Your task to perform on an android device: change the clock style Image 0: 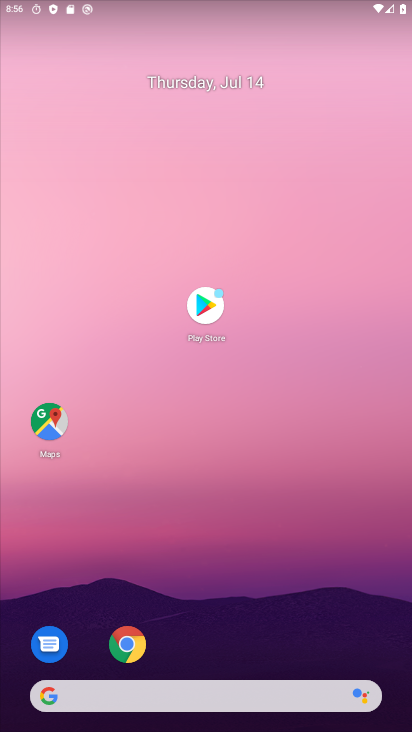
Step 0: drag from (206, 612) to (219, 142)
Your task to perform on an android device: change the clock style Image 1: 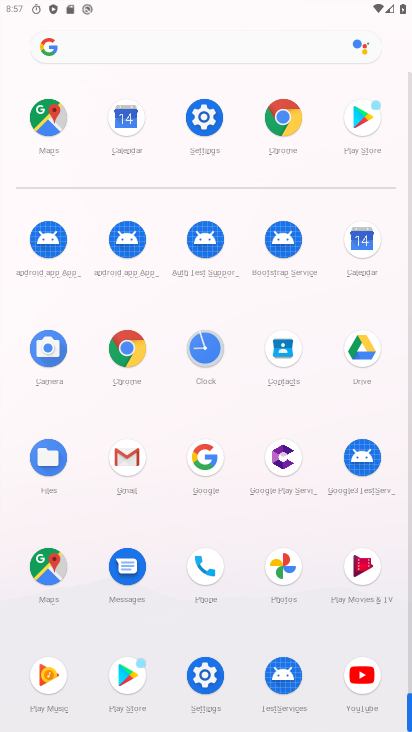
Step 1: drag from (168, 634) to (206, 365)
Your task to perform on an android device: change the clock style Image 2: 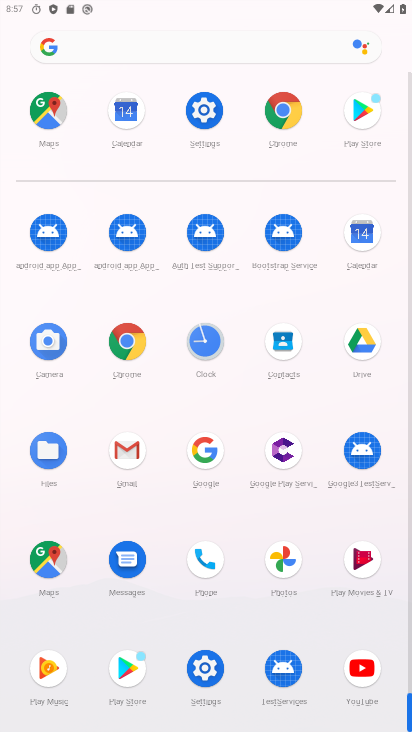
Step 2: click (195, 341)
Your task to perform on an android device: change the clock style Image 3: 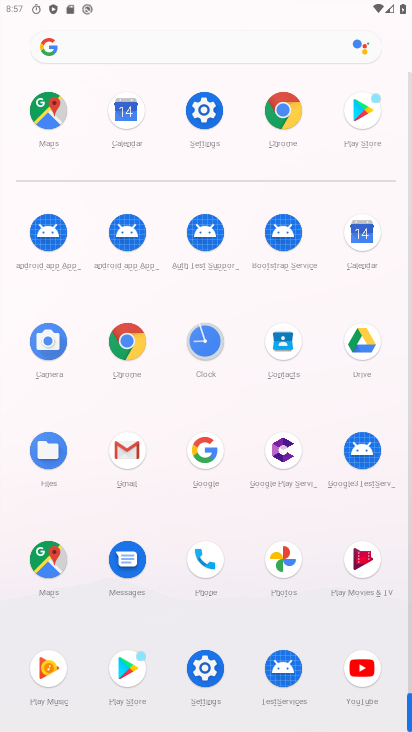
Step 3: click (195, 341)
Your task to perform on an android device: change the clock style Image 4: 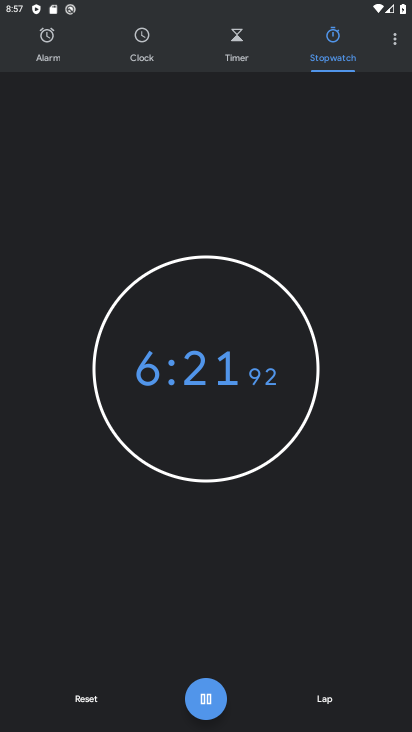
Step 4: drag from (139, 582) to (188, 248)
Your task to perform on an android device: change the clock style Image 5: 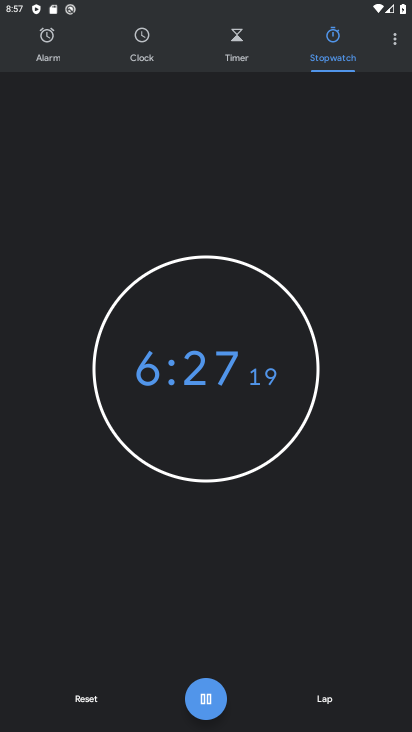
Step 5: click (384, 40)
Your task to perform on an android device: change the clock style Image 6: 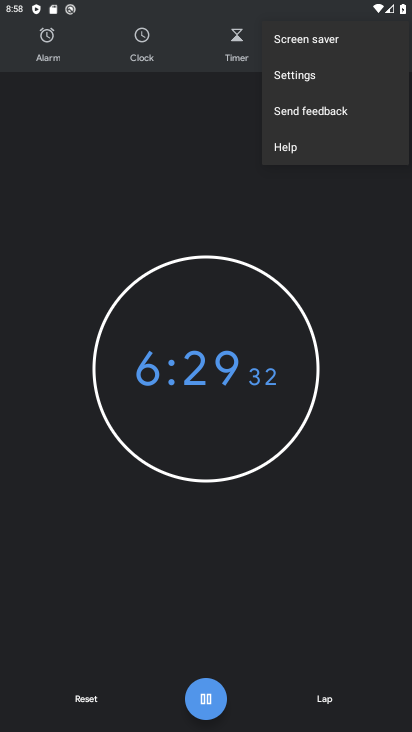
Step 6: click (309, 75)
Your task to perform on an android device: change the clock style Image 7: 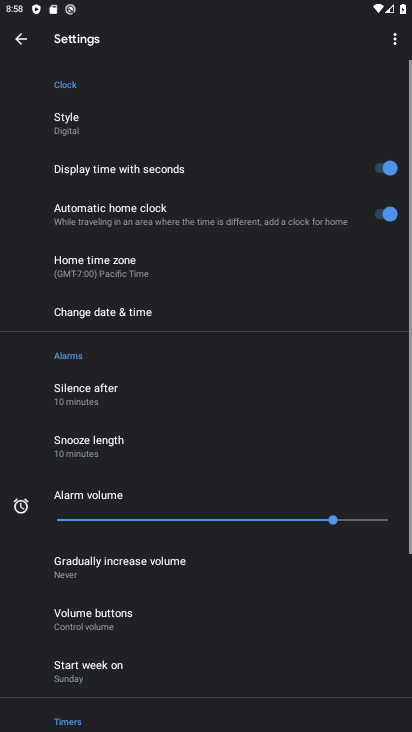
Step 7: click (87, 132)
Your task to perform on an android device: change the clock style Image 8: 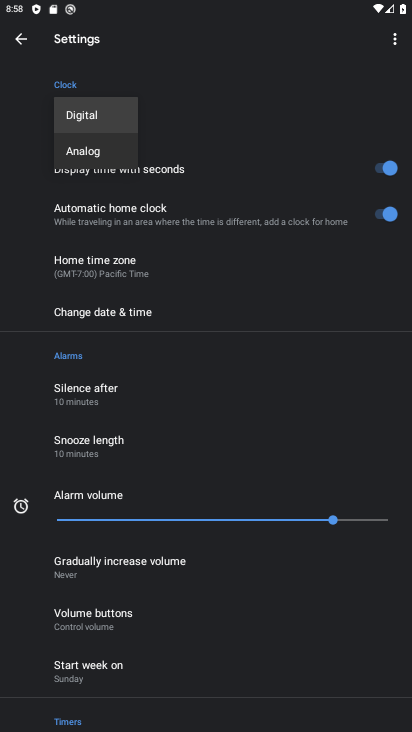
Step 8: click (99, 151)
Your task to perform on an android device: change the clock style Image 9: 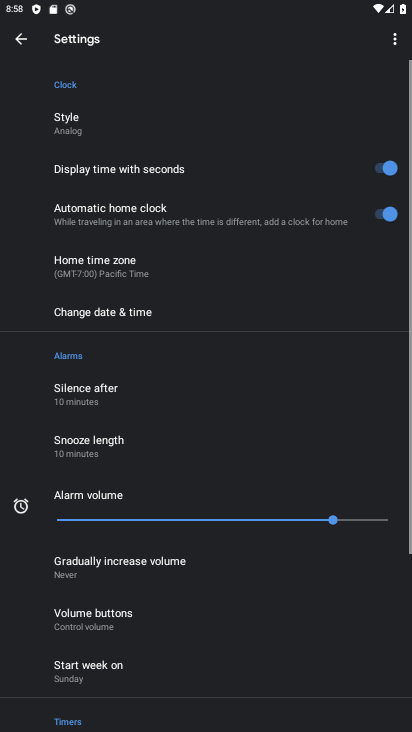
Step 9: task complete